Your task to perform on an android device: Open the map Image 0: 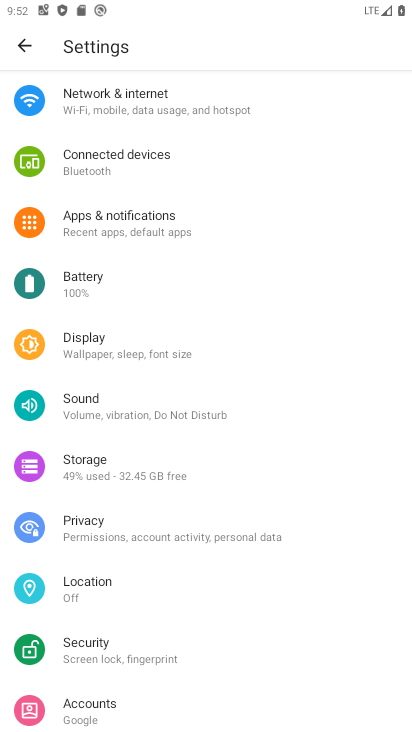
Step 0: press home button
Your task to perform on an android device: Open the map Image 1: 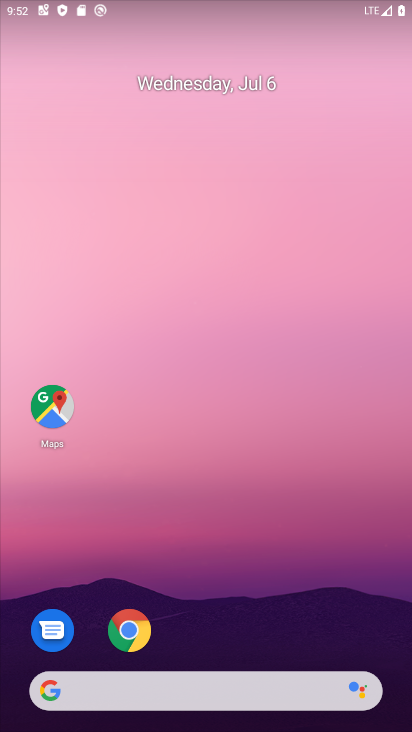
Step 1: click (51, 406)
Your task to perform on an android device: Open the map Image 2: 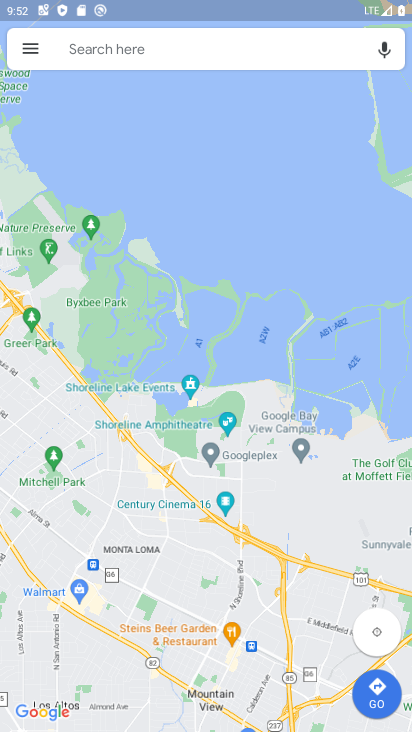
Step 2: task complete